Your task to perform on an android device: View the shopping cart on bestbuy.com. Add "asus zenbook" to the cart on bestbuy.com, then select checkout. Image 0: 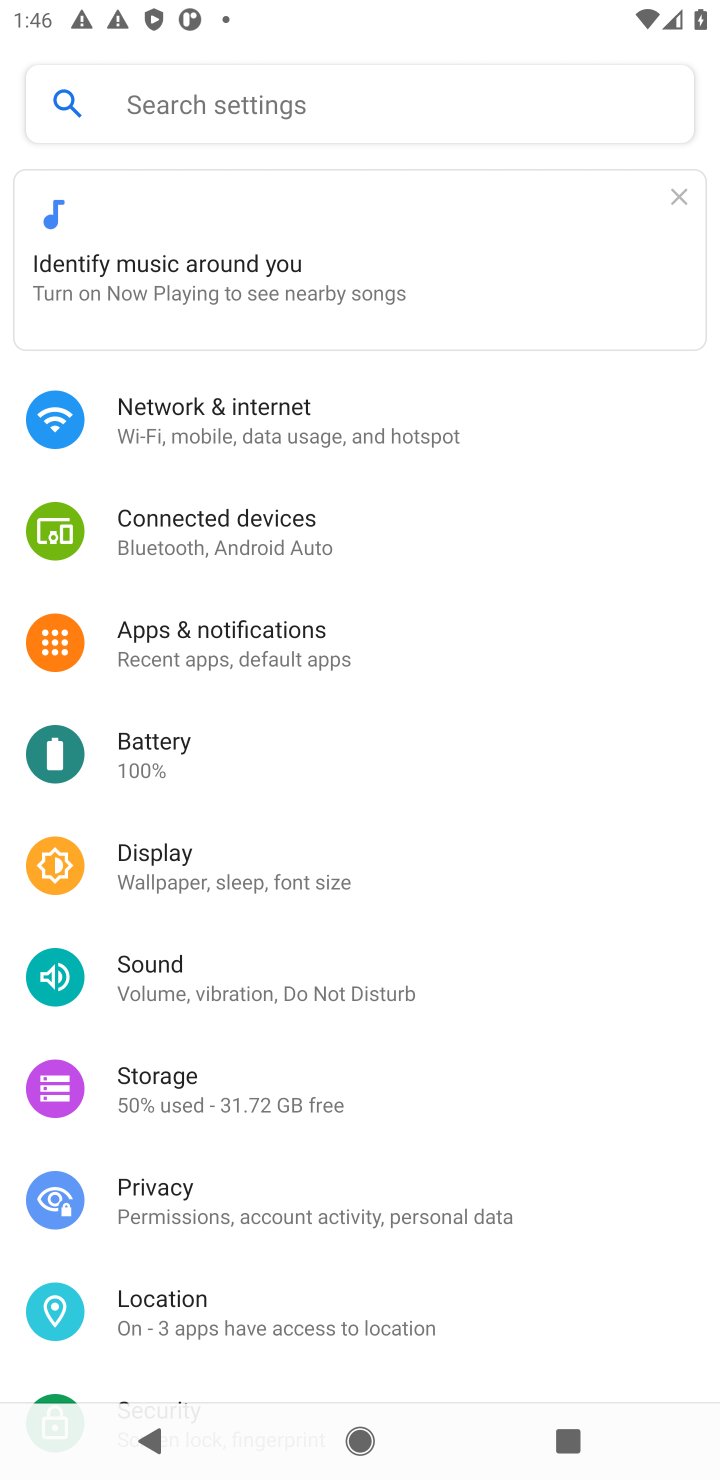
Step 0: press home button
Your task to perform on an android device: View the shopping cart on bestbuy.com. Add "asus zenbook" to the cart on bestbuy.com, then select checkout. Image 1: 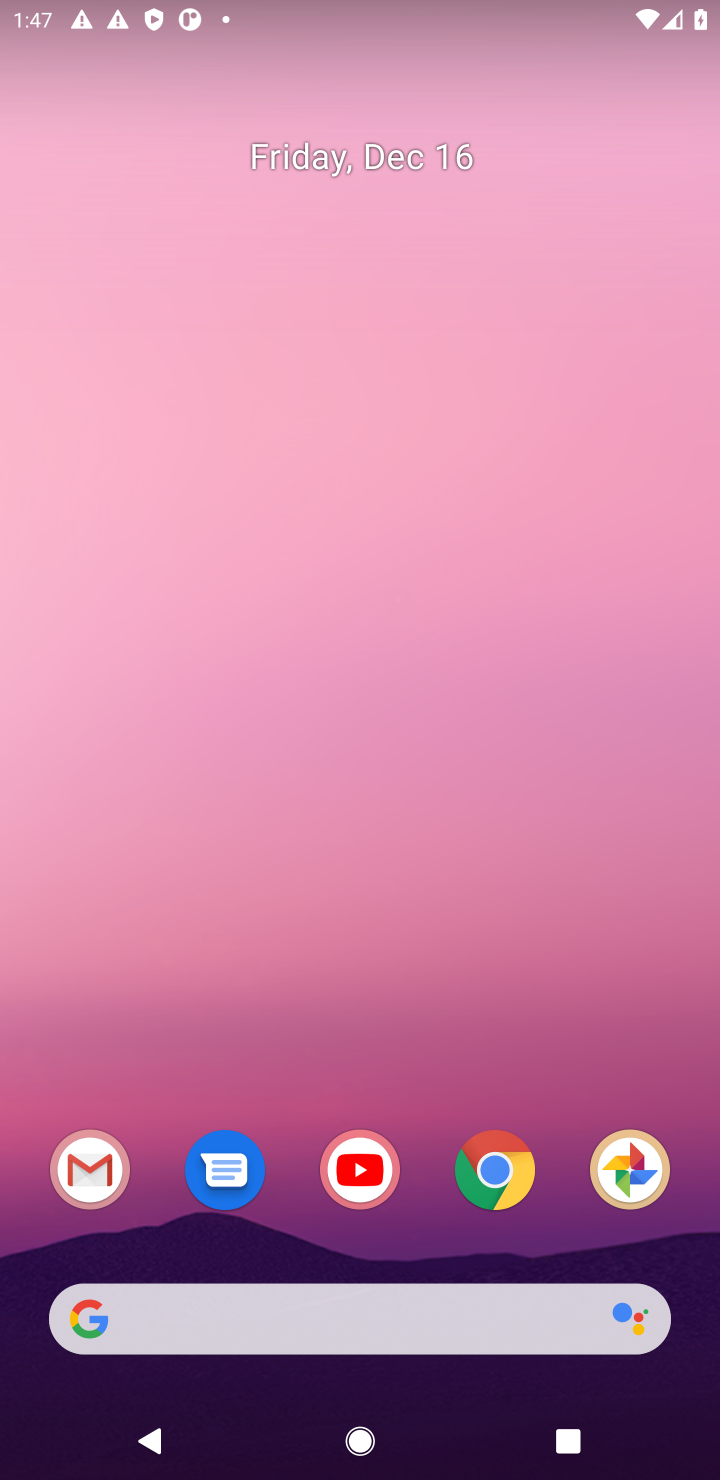
Step 1: click (508, 1173)
Your task to perform on an android device: View the shopping cart on bestbuy.com. Add "asus zenbook" to the cart on bestbuy.com, then select checkout. Image 2: 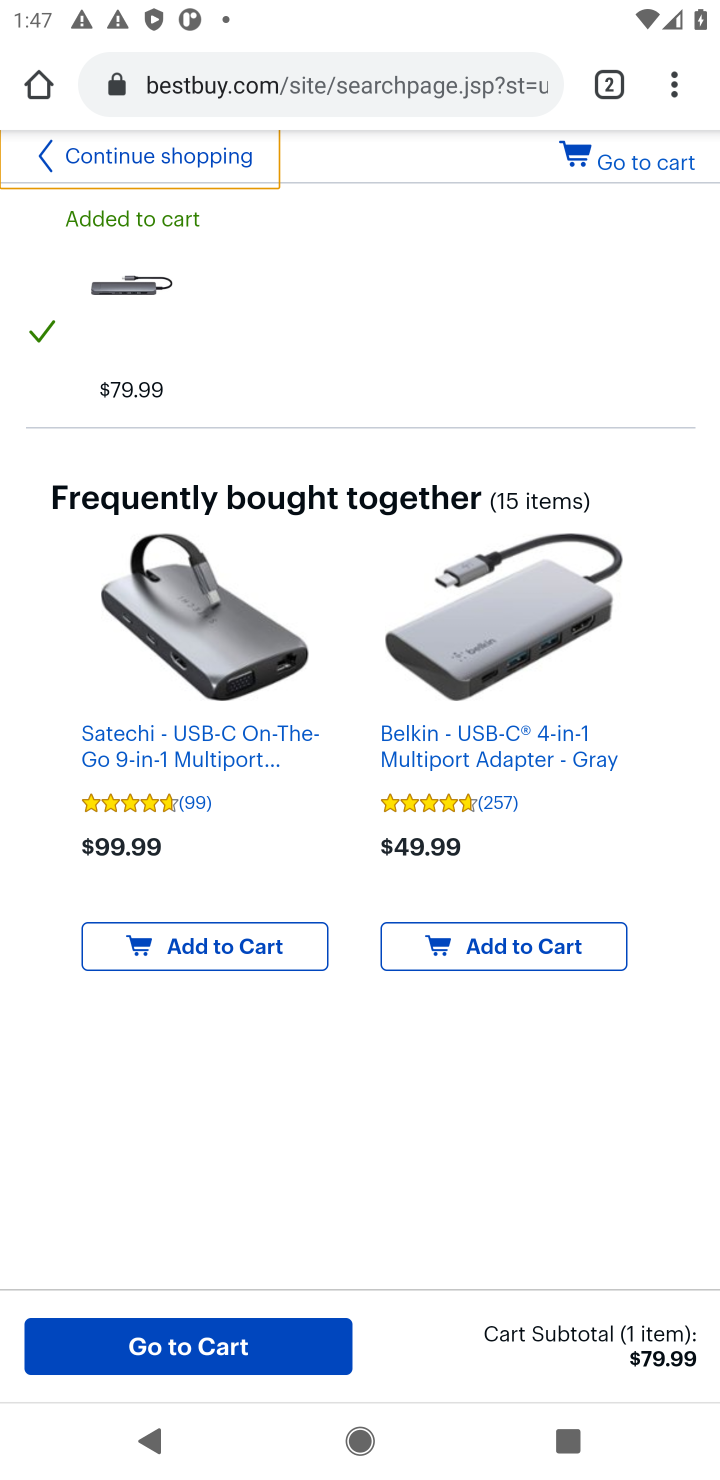
Step 2: press back button
Your task to perform on an android device: View the shopping cart on bestbuy.com. Add "asus zenbook" to the cart on bestbuy.com, then select checkout. Image 3: 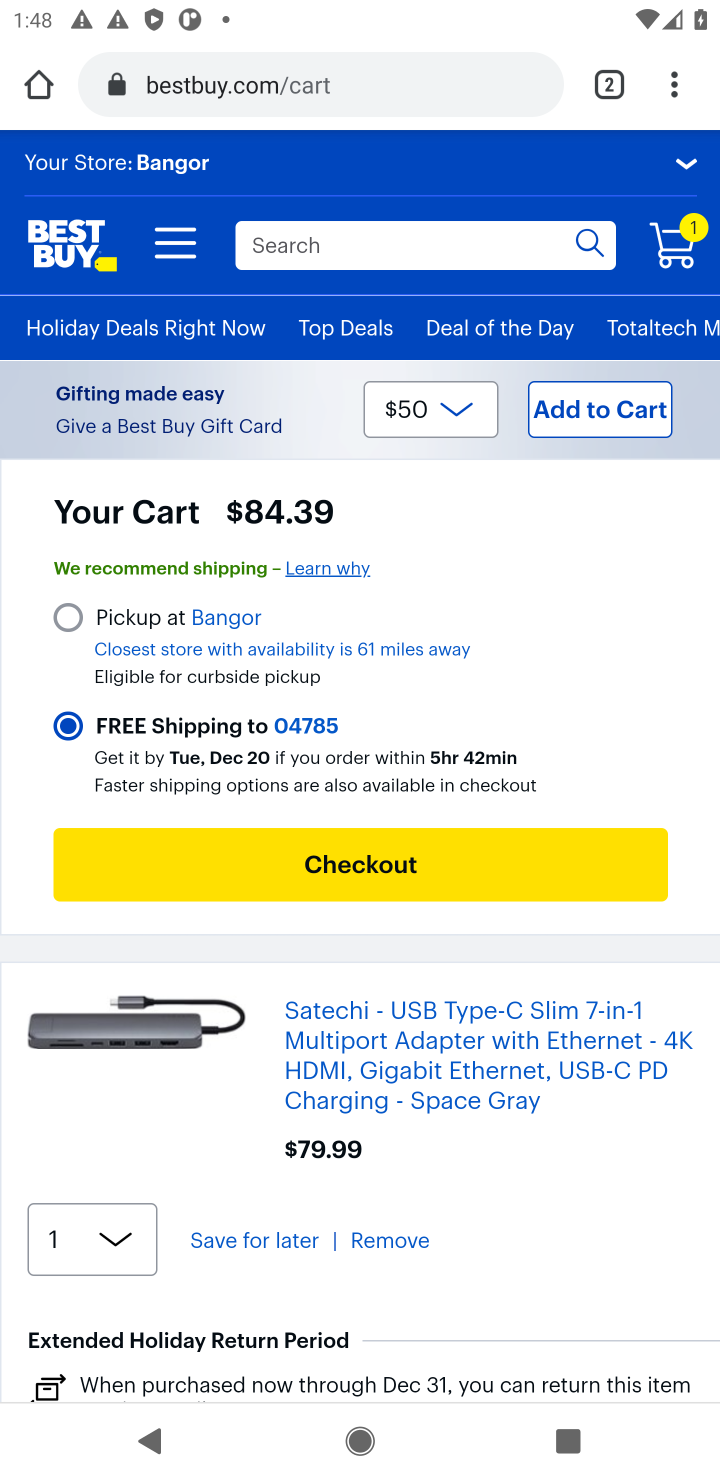
Step 3: drag from (605, 796) to (593, 558)
Your task to perform on an android device: View the shopping cart on bestbuy.com. Add "asus zenbook" to the cart on bestbuy.com, then select checkout. Image 4: 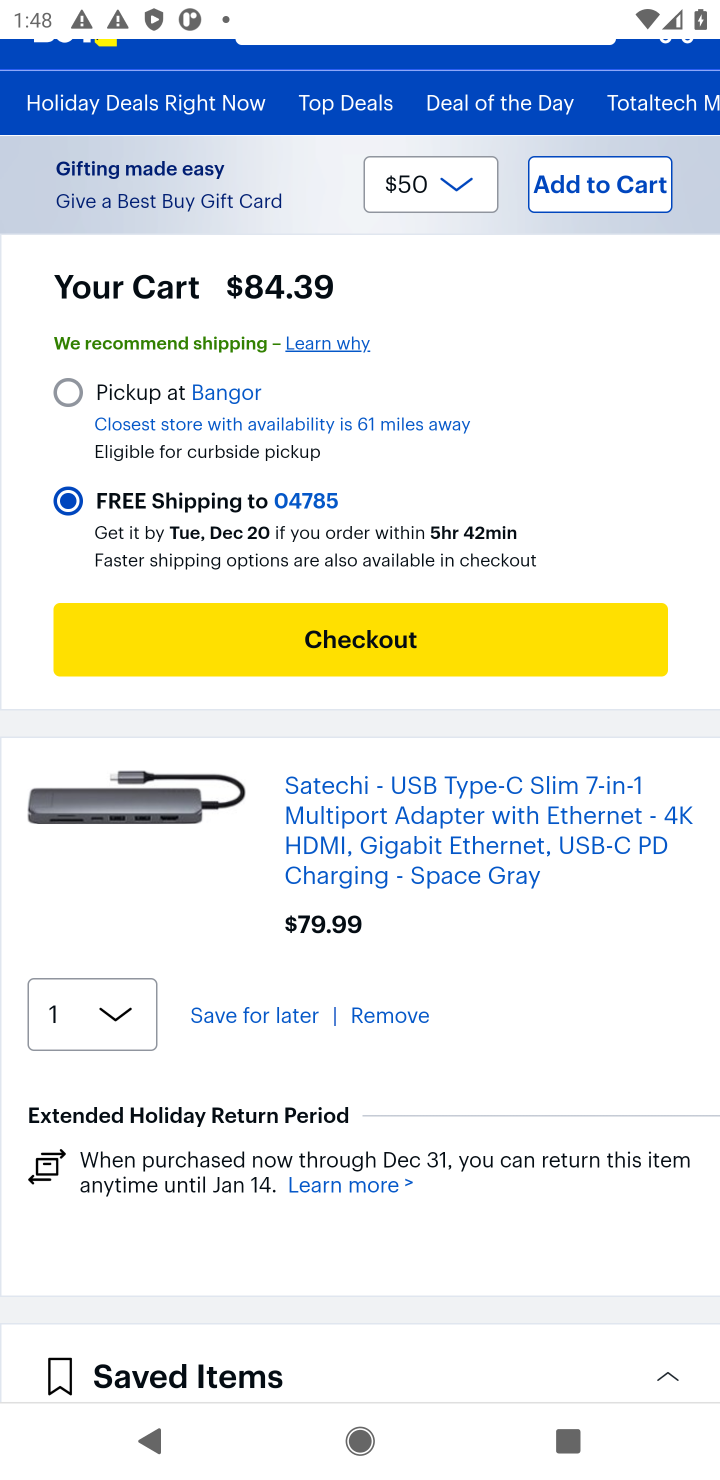
Step 4: drag from (542, 452) to (557, 960)
Your task to perform on an android device: View the shopping cart on bestbuy.com. Add "asus zenbook" to the cart on bestbuy.com, then select checkout. Image 5: 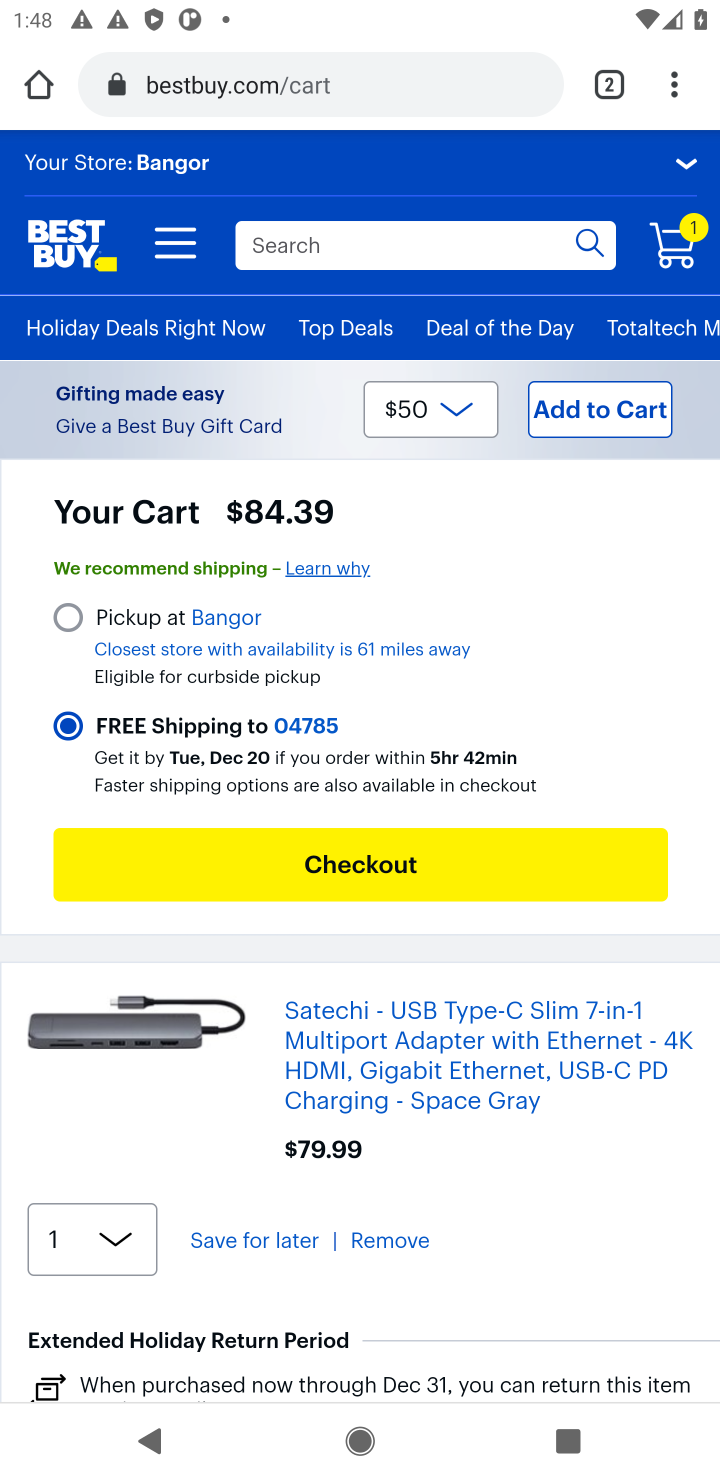
Step 5: click (296, 240)
Your task to perform on an android device: View the shopping cart on bestbuy.com. Add "asus zenbook" to the cart on bestbuy.com, then select checkout. Image 6: 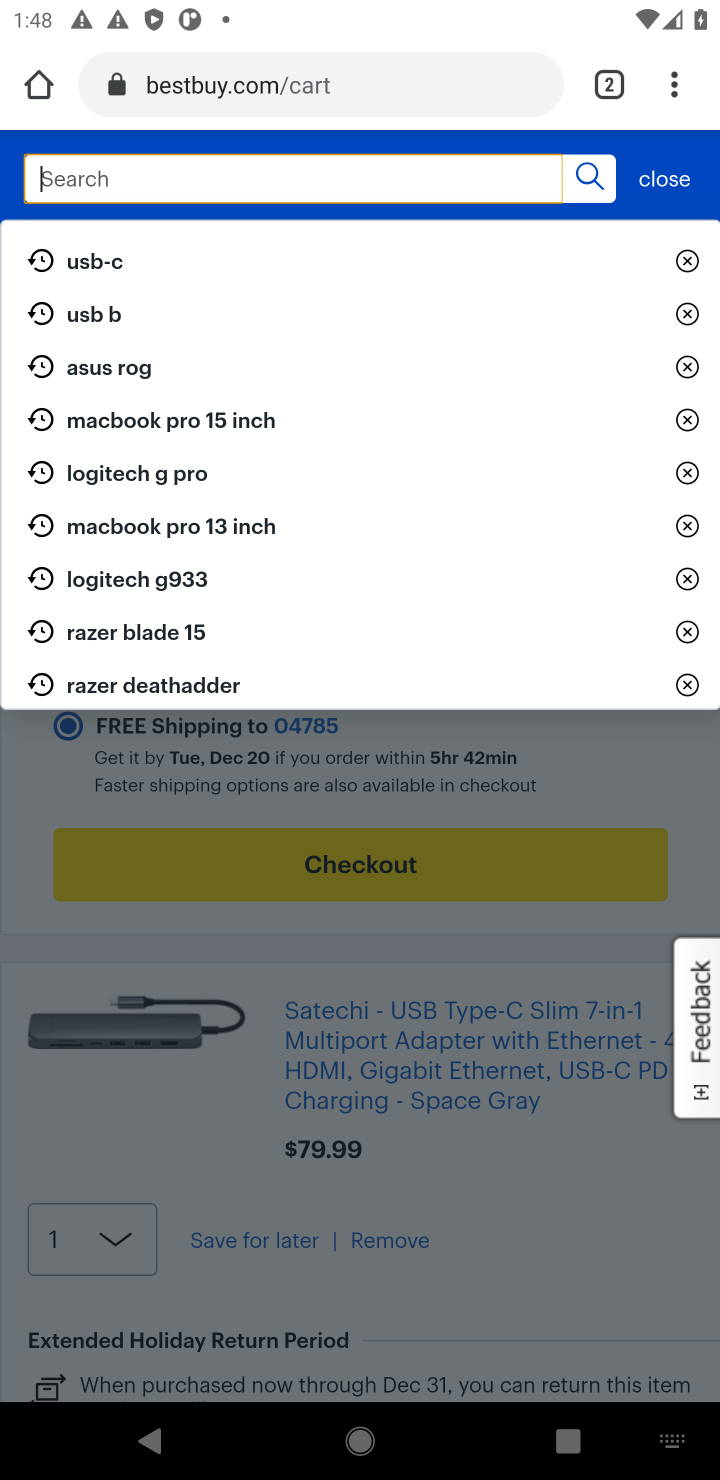
Step 6: type "asus zenbook"
Your task to perform on an android device: View the shopping cart on bestbuy.com. Add "asus zenbook" to the cart on bestbuy.com, then select checkout. Image 7: 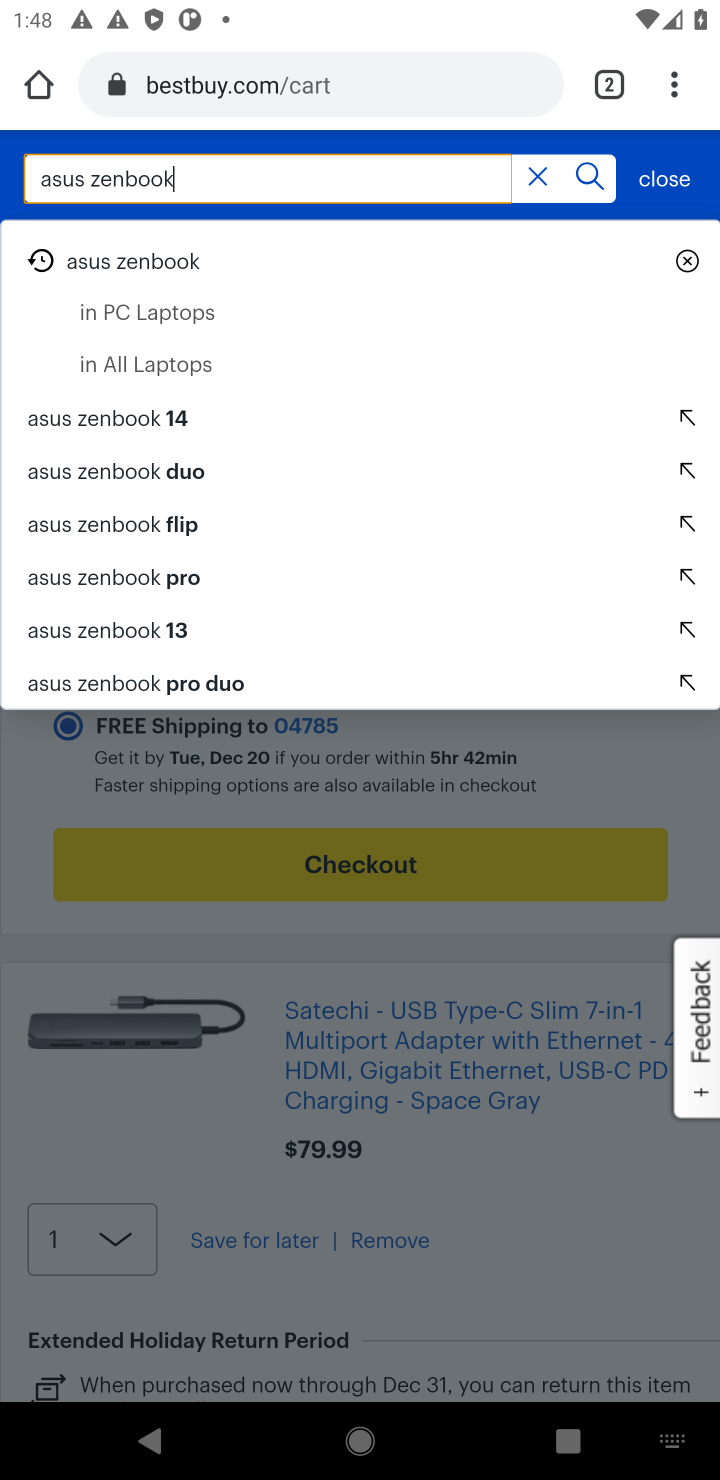
Step 7: click (135, 258)
Your task to perform on an android device: View the shopping cart on bestbuy.com. Add "asus zenbook" to the cart on bestbuy.com, then select checkout. Image 8: 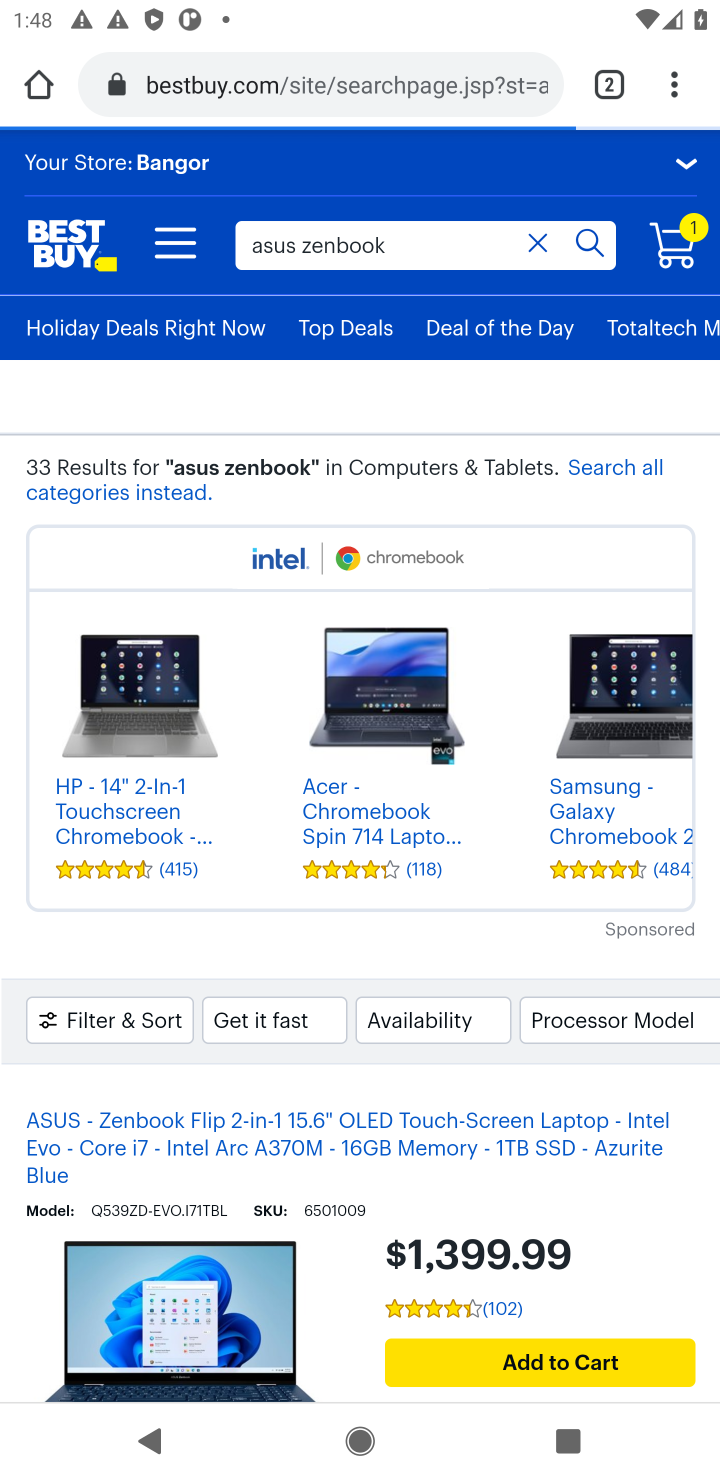
Step 8: drag from (215, 1195) to (232, 723)
Your task to perform on an android device: View the shopping cart on bestbuy.com. Add "asus zenbook" to the cart on bestbuy.com, then select checkout. Image 9: 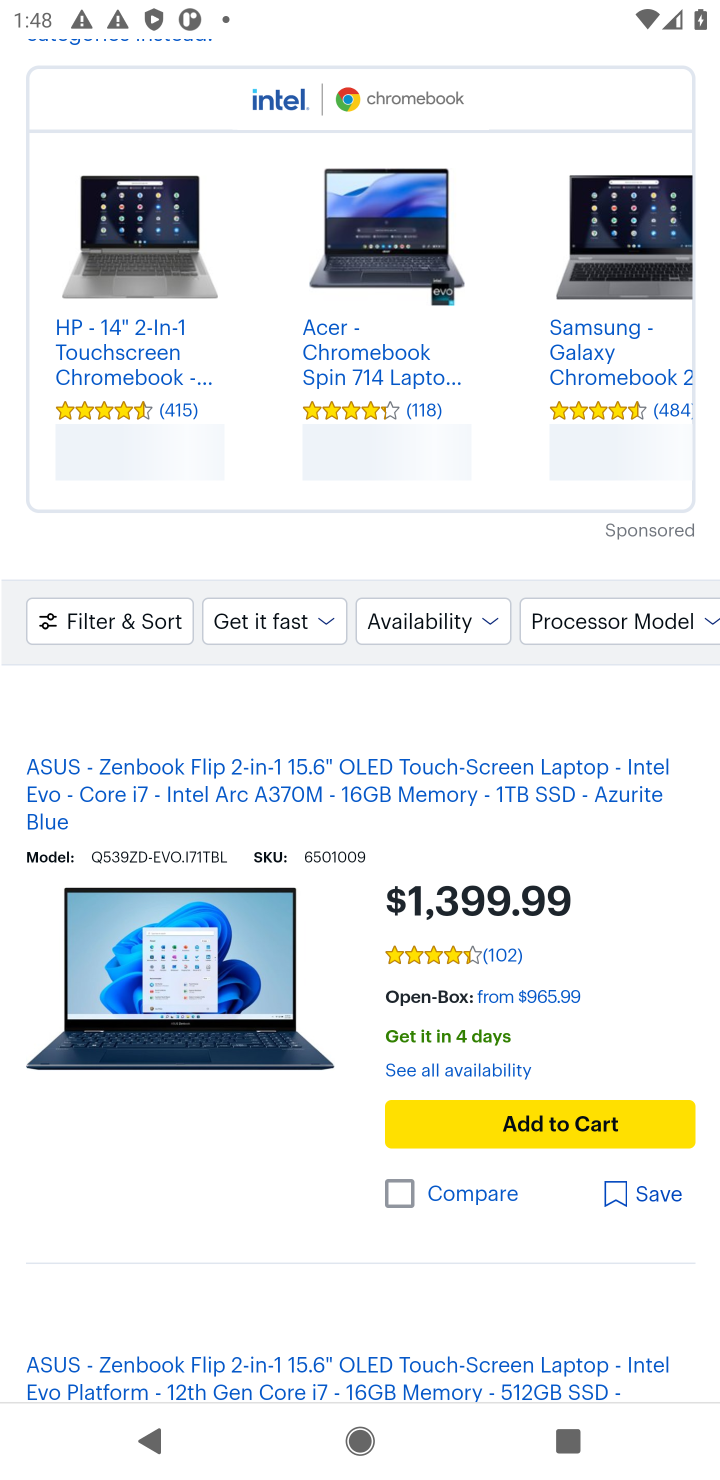
Step 9: click (533, 1118)
Your task to perform on an android device: View the shopping cart on bestbuy.com. Add "asus zenbook" to the cart on bestbuy.com, then select checkout. Image 10: 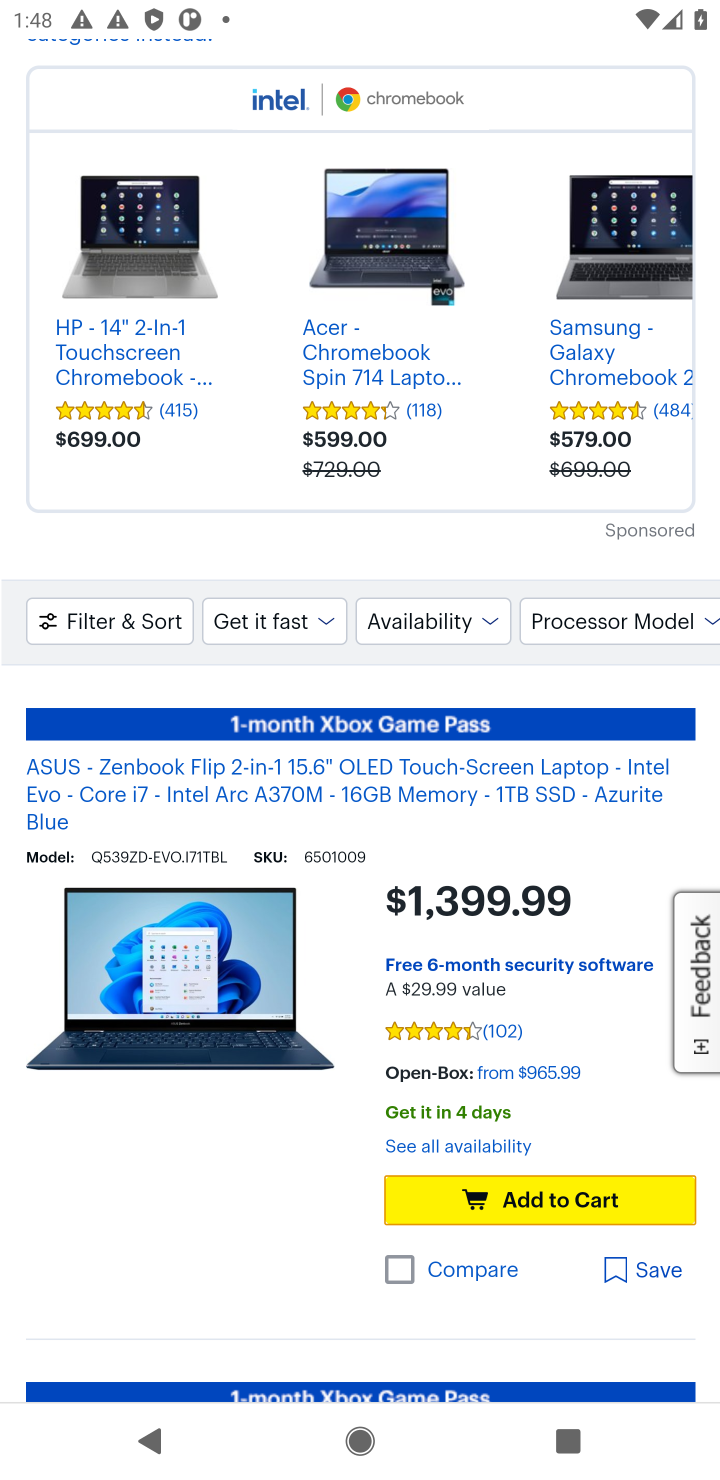
Step 10: click (522, 1203)
Your task to perform on an android device: View the shopping cart on bestbuy.com. Add "asus zenbook" to the cart on bestbuy.com, then select checkout. Image 11: 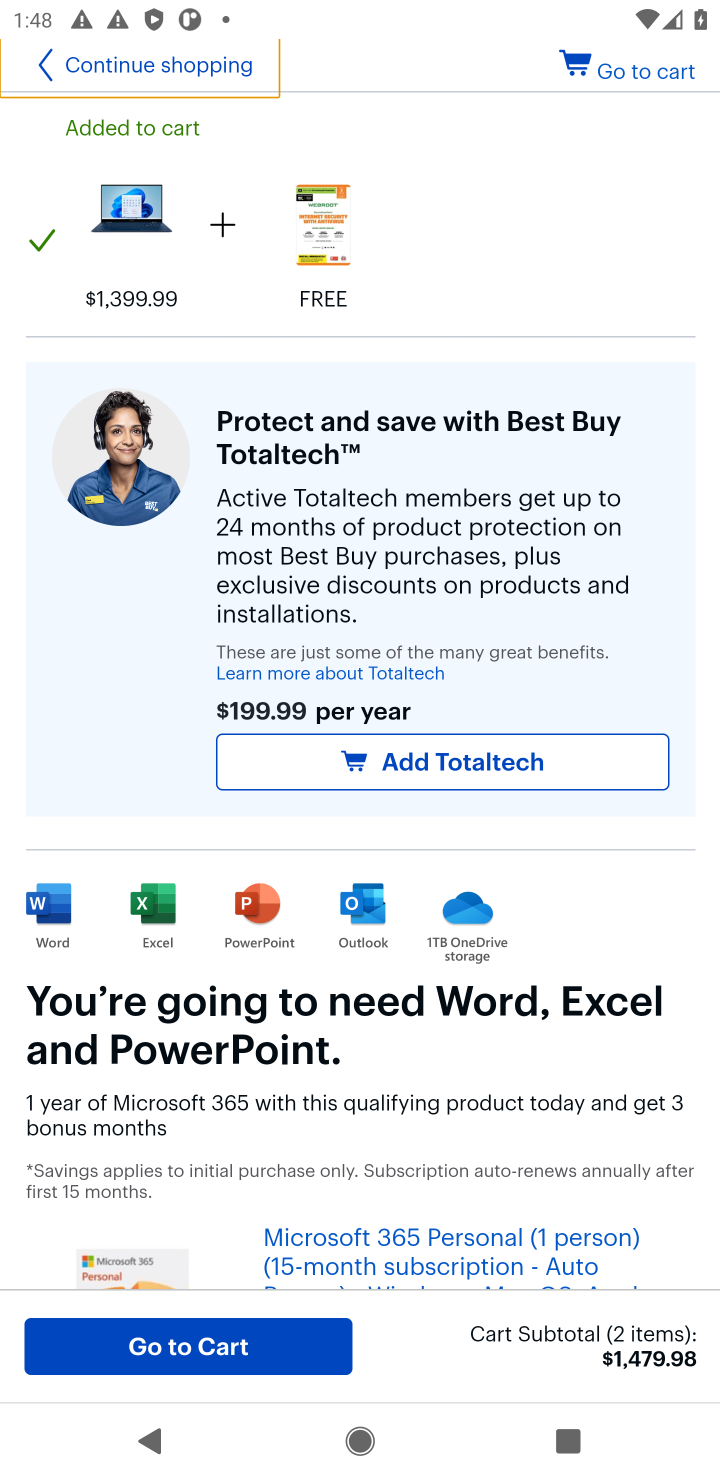
Step 11: click (642, 72)
Your task to perform on an android device: View the shopping cart on bestbuy.com. Add "asus zenbook" to the cart on bestbuy.com, then select checkout. Image 12: 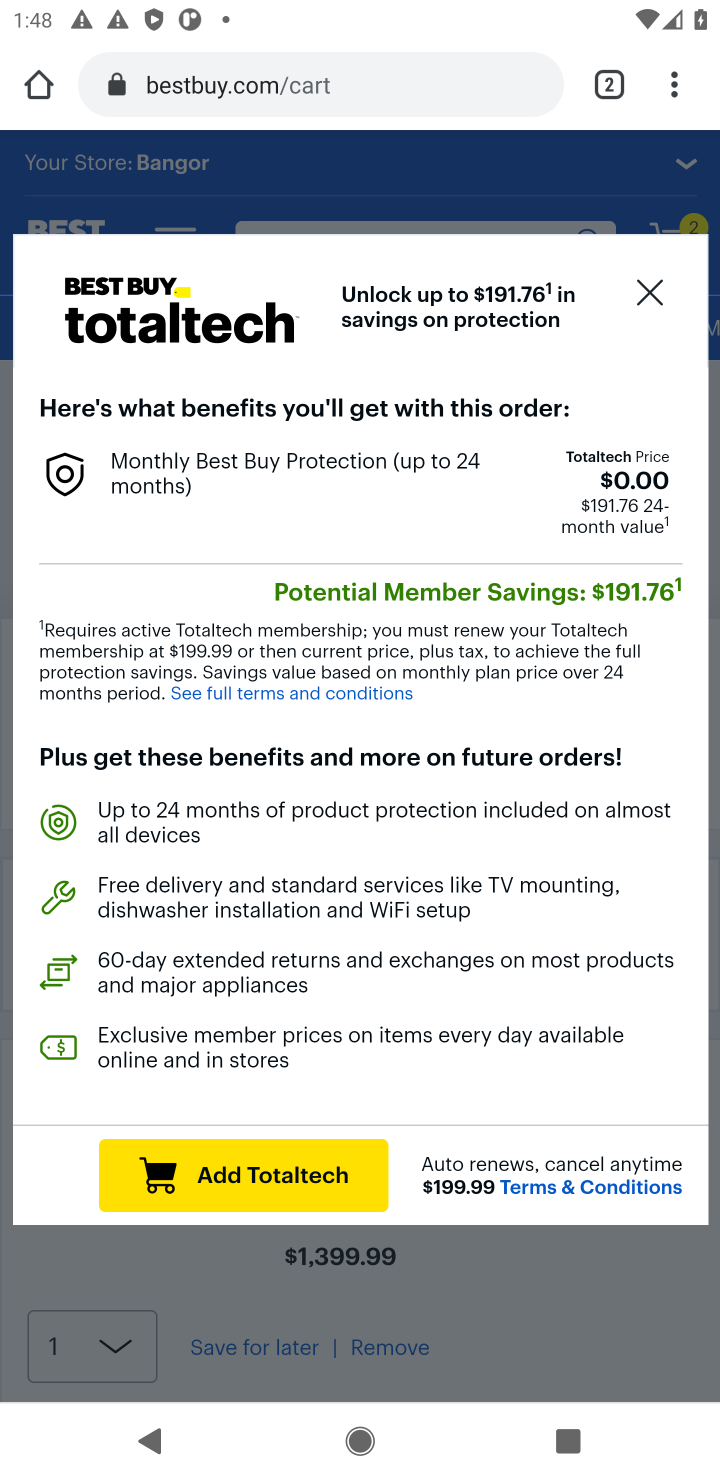
Step 12: click (643, 301)
Your task to perform on an android device: View the shopping cart on bestbuy.com. Add "asus zenbook" to the cart on bestbuy.com, then select checkout. Image 13: 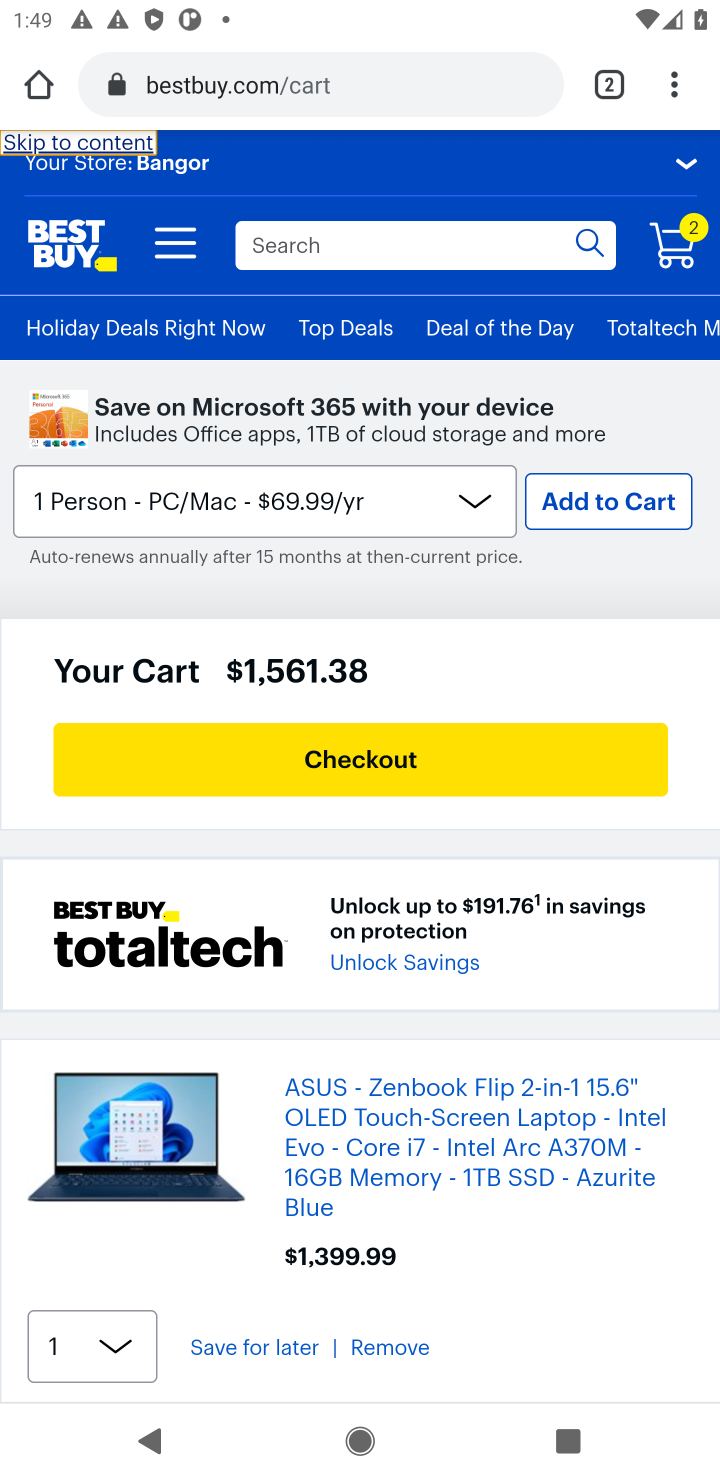
Step 13: click (291, 759)
Your task to perform on an android device: View the shopping cart on bestbuy.com. Add "asus zenbook" to the cart on bestbuy.com, then select checkout. Image 14: 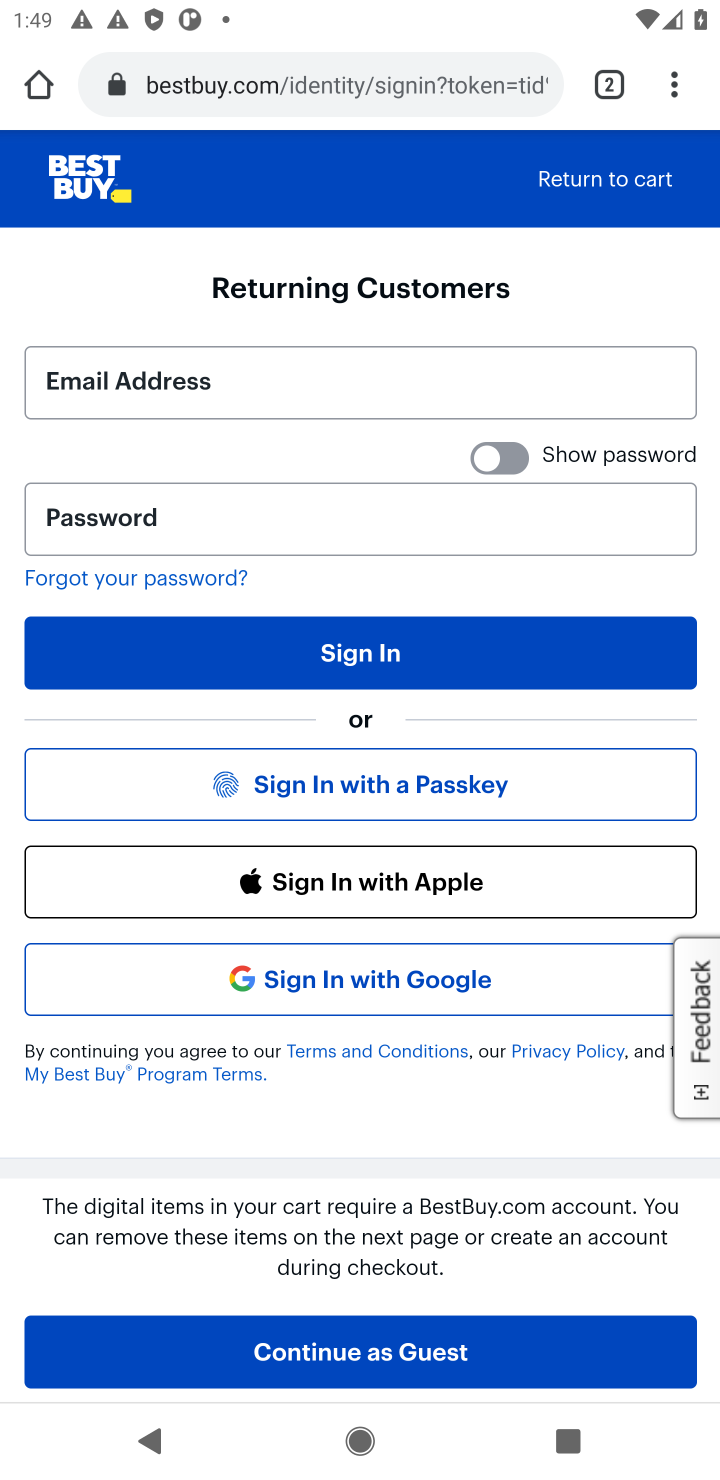
Step 14: task complete